Your task to perform on an android device: Clear all items from cart on walmart.com. Search for "apple airpods" on walmart.com, select the first entry, add it to the cart, then select checkout. Image 0: 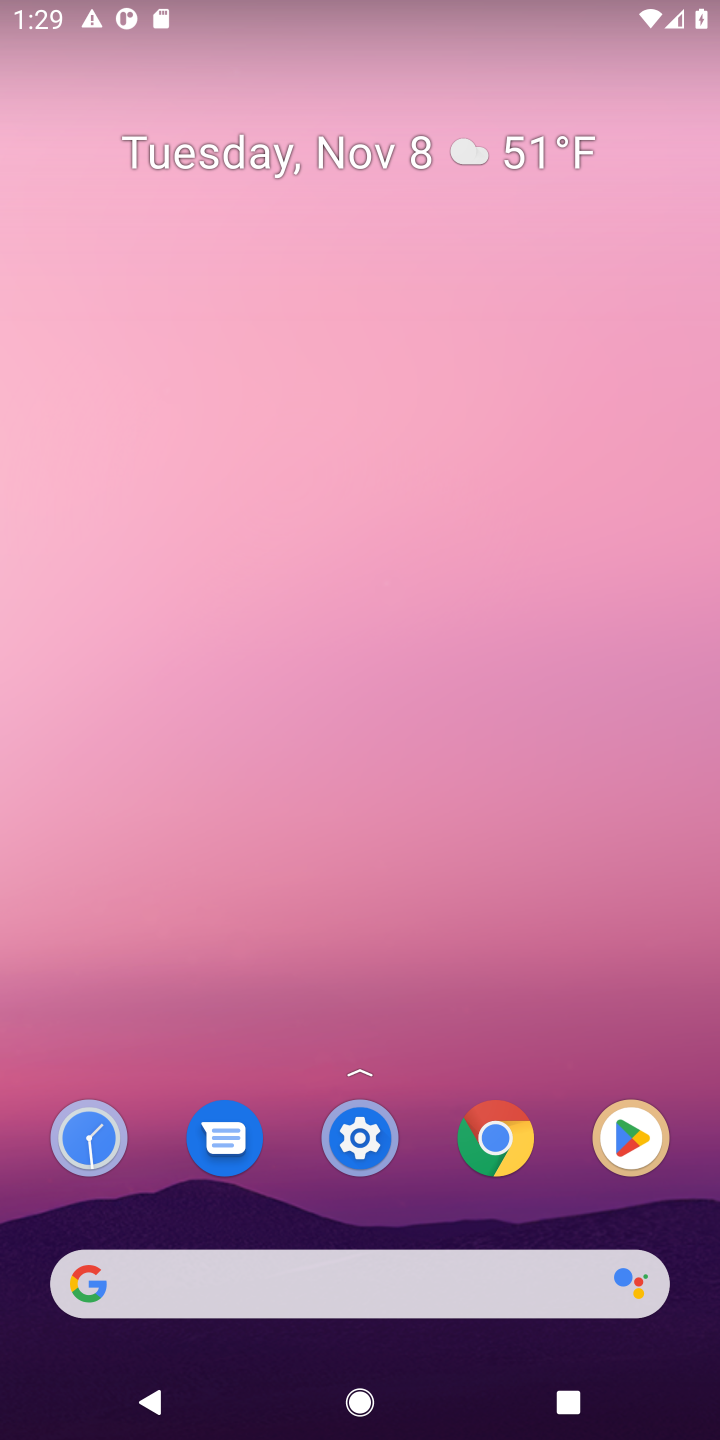
Step 0: click (435, 1316)
Your task to perform on an android device: Clear all items from cart on walmart.com. Search for "apple airpods" on walmart.com, select the first entry, add it to the cart, then select checkout. Image 1: 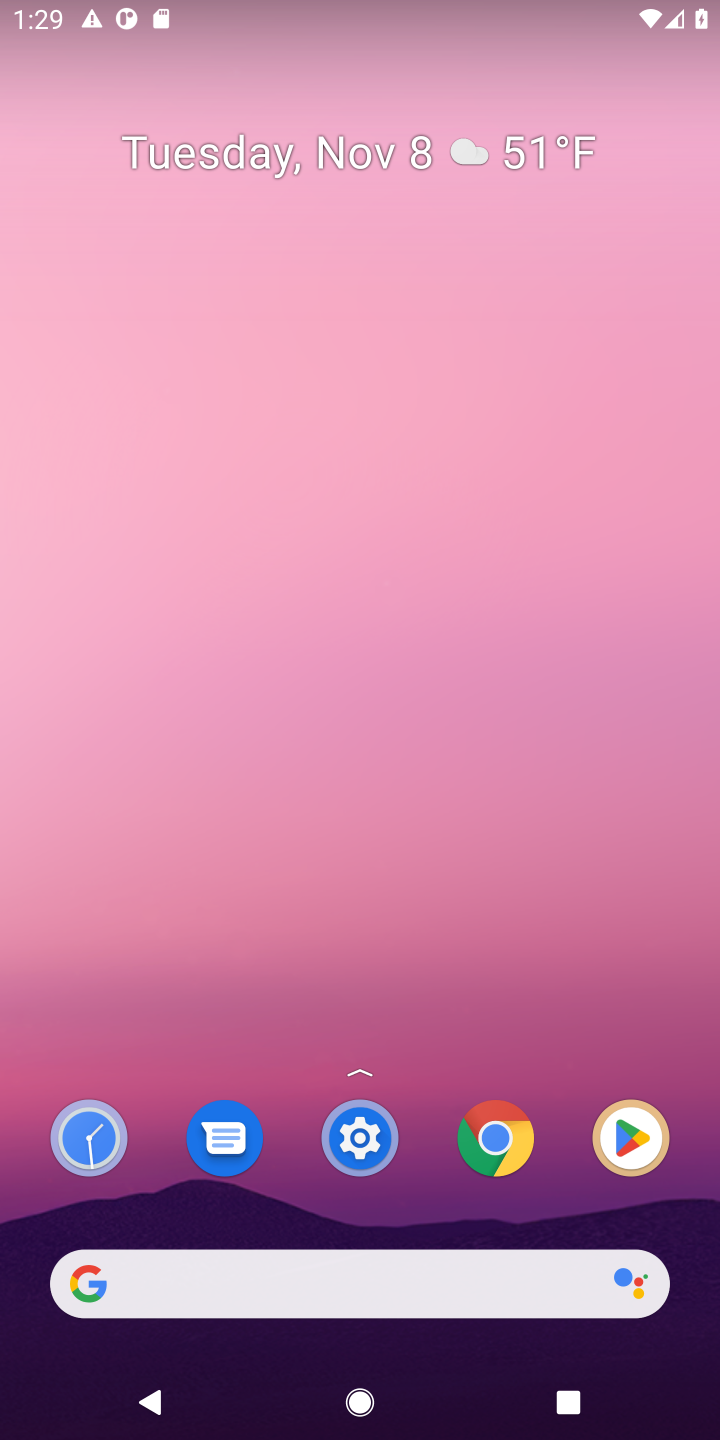
Step 1: click (569, 1284)
Your task to perform on an android device: Clear all items from cart on walmart.com. Search for "apple airpods" on walmart.com, select the first entry, add it to the cart, then select checkout. Image 2: 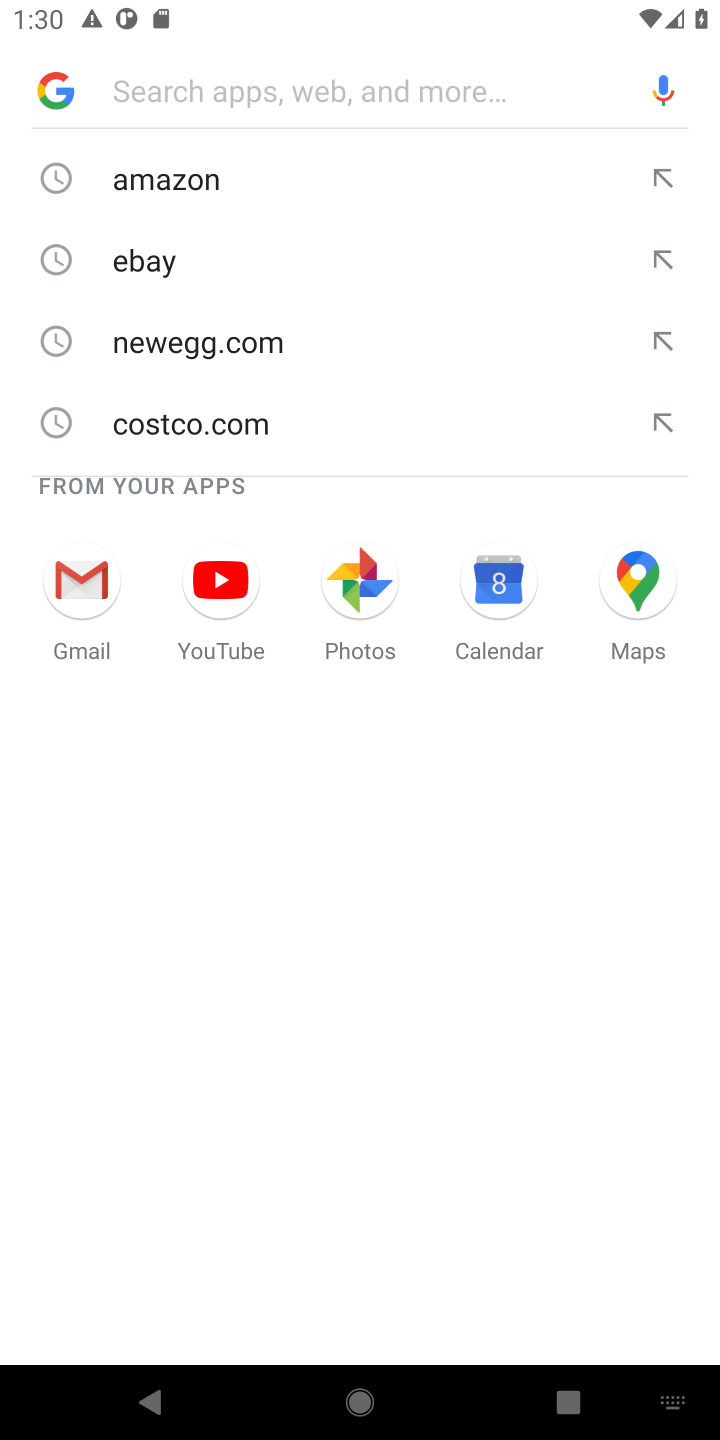
Step 2: type "walmart"
Your task to perform on an android device: Clear all items from cart on walmart.com. Search for "apple airpods" on walmart.com, select the first entry, add it to the cart, then select checkout. Image 3: 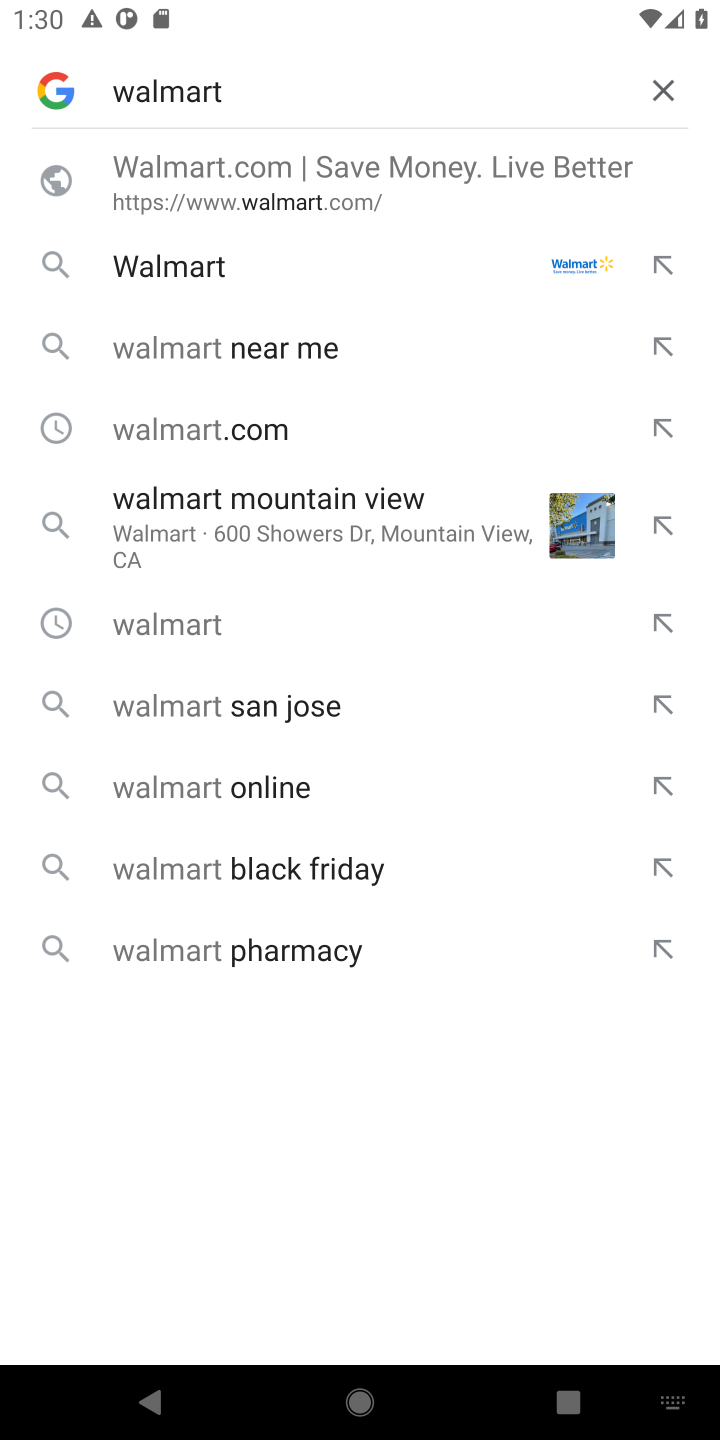
Step 3: click (318, 195)
Your task to perform on an android device: Clear all items from cart on walmart.com. Search for "apple airpods" on walmart.com, select the first entry, add it to the cart, then select checkout. Image 4: 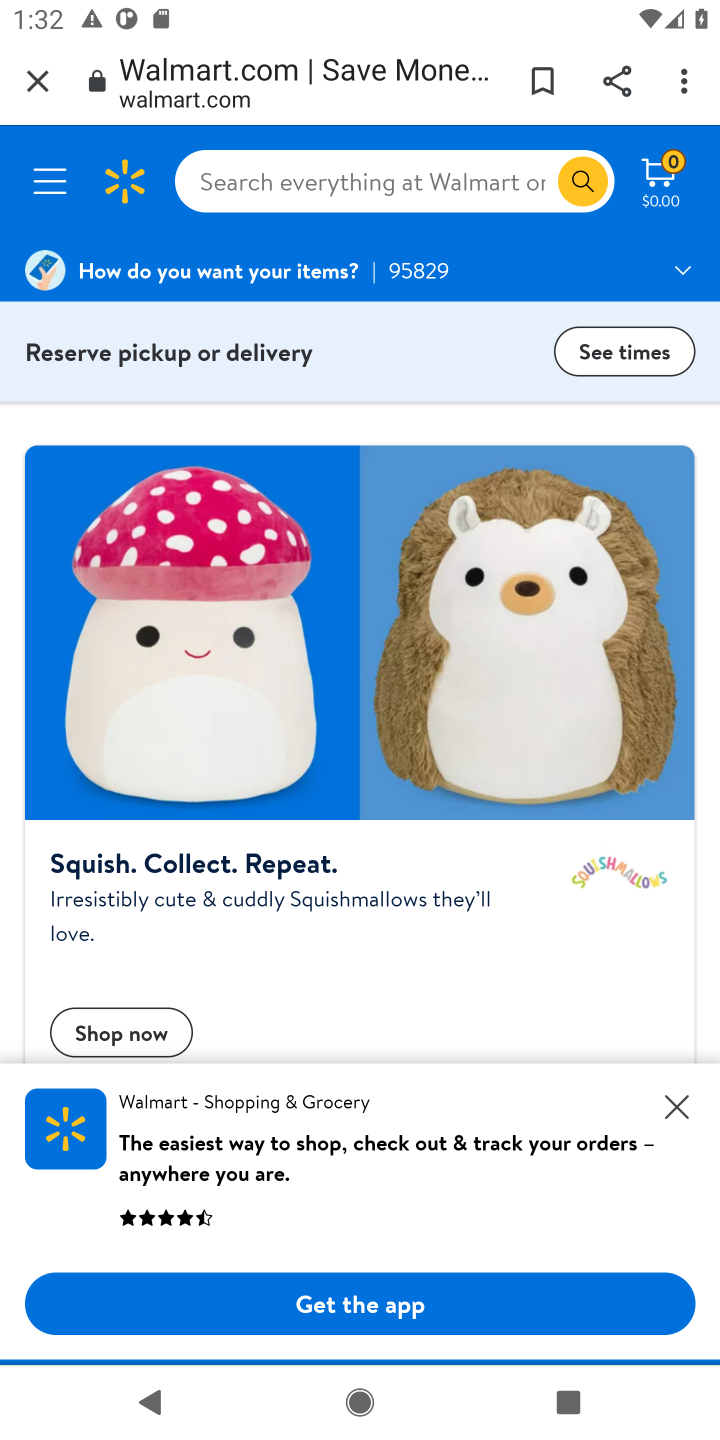
Step 4: task complete